Your task to perform on an android device: check storage Image 0: 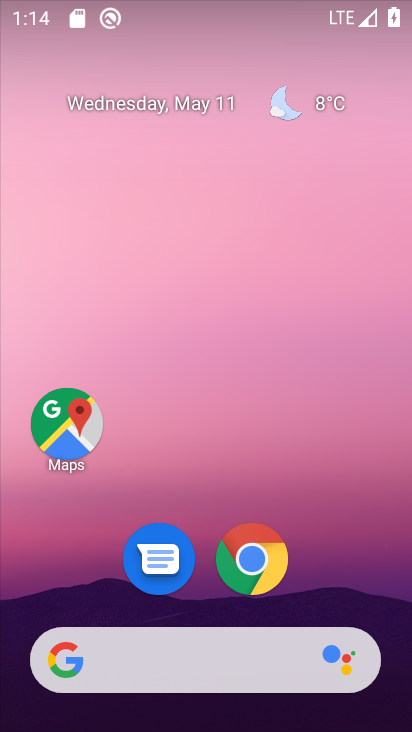
Step 0: drag from (202, 720) to (202, 187)
Your task to perform on an android device: check storage Image 1: 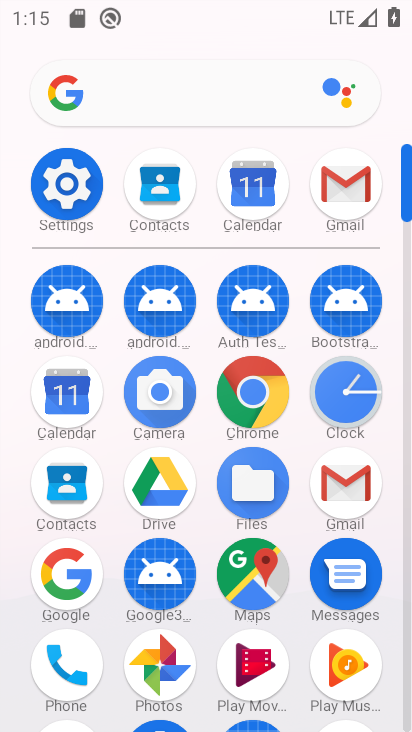
Step 1: click (66, 179)
Your task to perform on an android device: check storage Image 2: 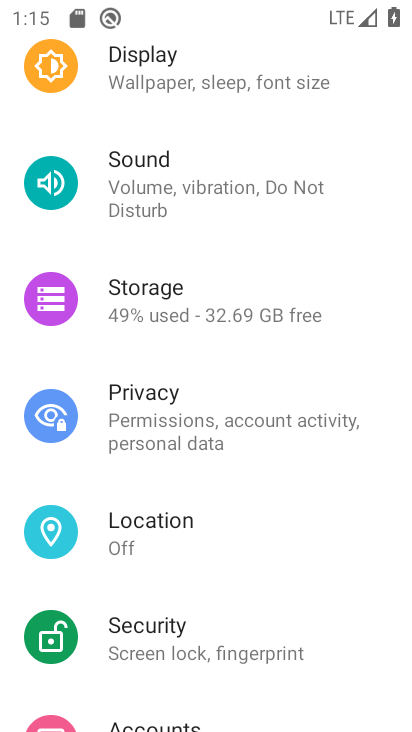
Step 2: click (163, 307)
Your task to perform on an android device: check storage Image 3: 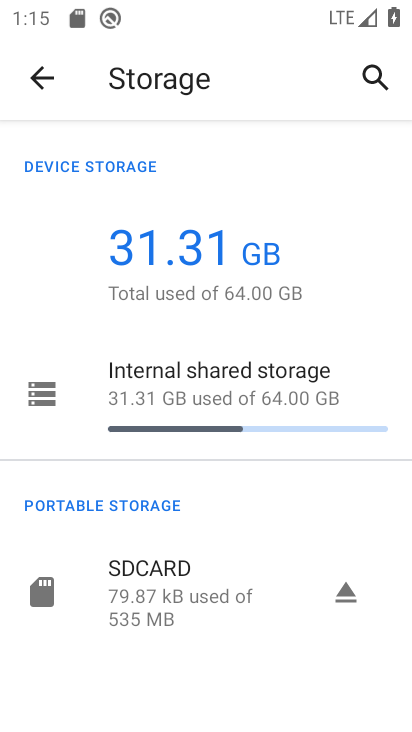
Step 3: task complete